Your task to perform on an android device: turn on notifications settings in the gmail app Image 0: 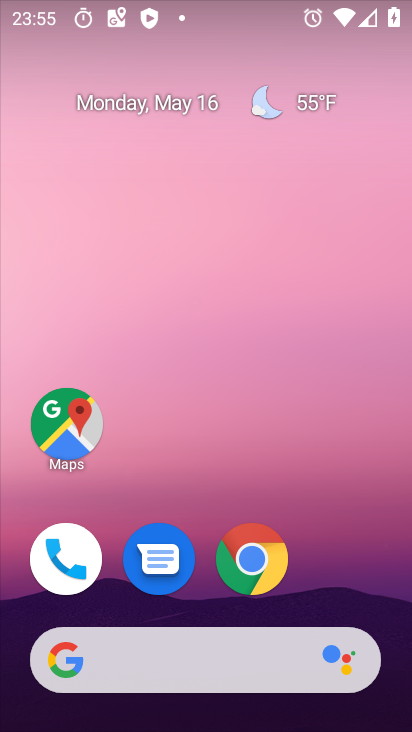
Step 0: drag from (359, 525) to (363, 97)
Your task to perform on an android device: turn on notifications settings in the gmail app Image 1: 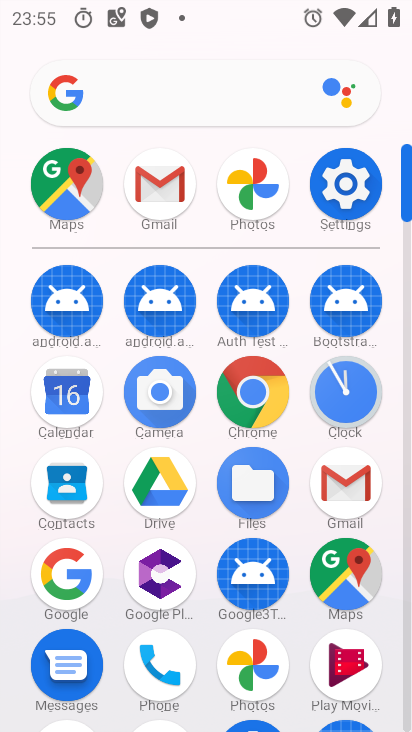
Step 1: click (147, 200)
Your task to perform on an android device: turn on notifications settings in the gmail app Image 2: 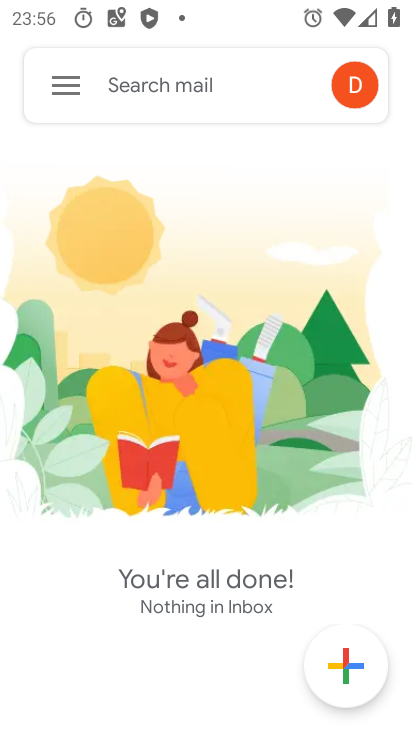
Step 2: click (71, 88)
Your task to perform on an android device: turn on notifications settings in the gmail app Image 3: 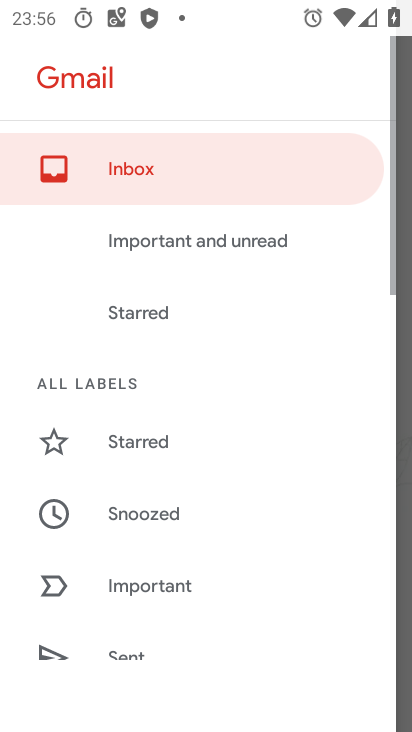
Step 3: drag from (200, 509) to (254, 118)
Your task to perform on an android device: turn on notifications settings in the gmail app Image 4: 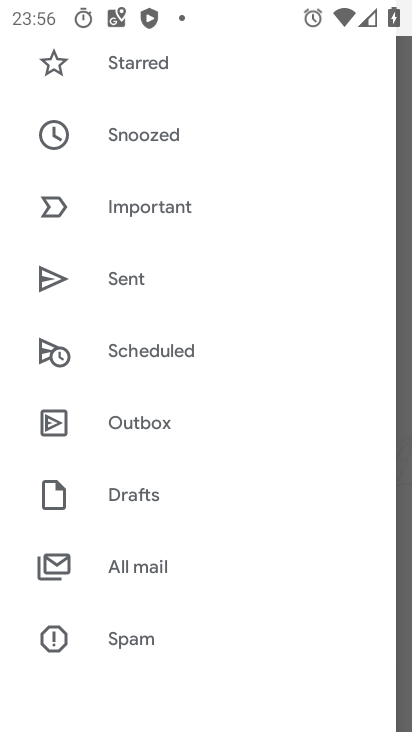
Step 4: drag from (219, 516) to (292, 257)
Your task to perform on an android device: turn on notifications settings in the gmail app Image 5: 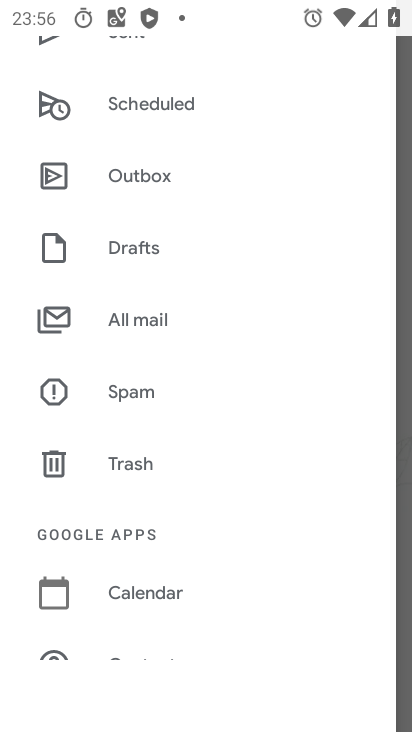
Step 5: drag from (170, 584) to (284, 187)
Your task to perform on an android device: turn on notifications settings in the gmail app Image 6: 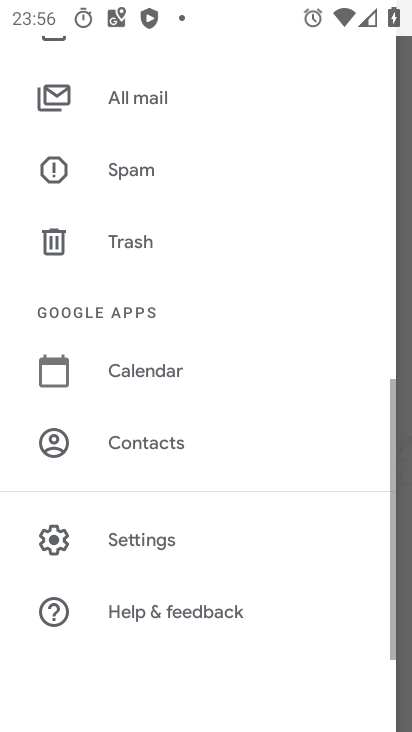
Step 6: click (167, 537)
Your task to perform on an android device: turn on notifications settings in the gmail app Image 7: 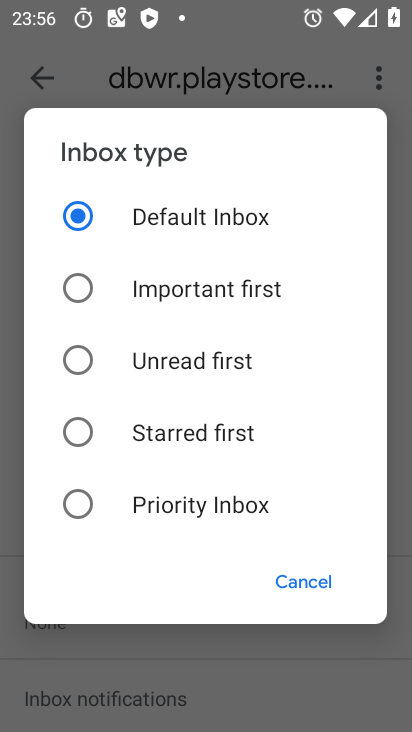
Step 7: click (301, 580)
Your task to perform on an android device: turn on notifications settings in the gmail app Image 8: 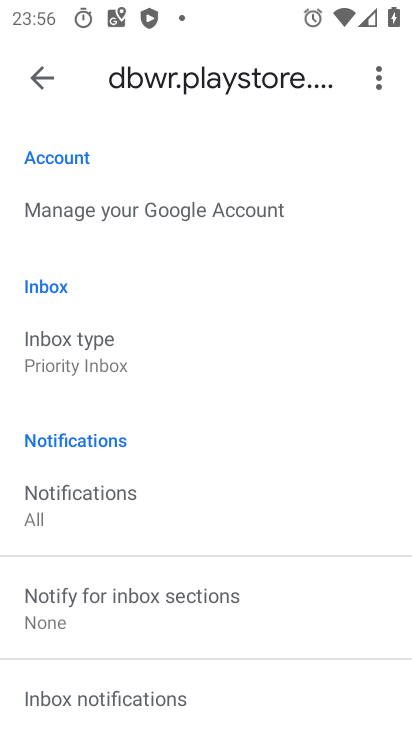
Step 8: click (211, 706)
Your task to perform on an android device: turn on notifications settings in the gmail app Image 9: 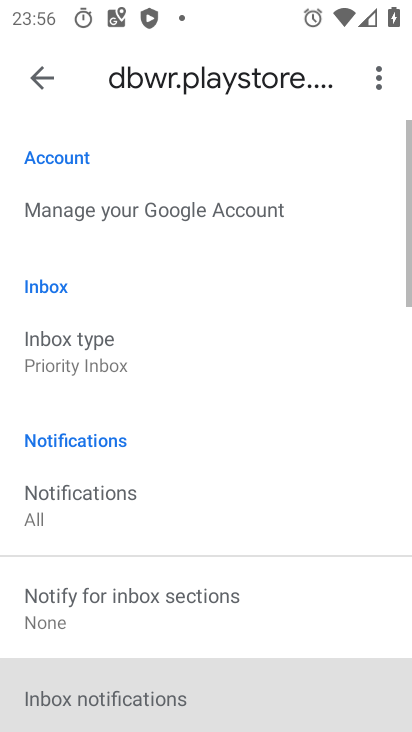
Step 9: click (210, 703)
Your task to perform on an android device: turn on notifications settings in the gmail app Image 10: 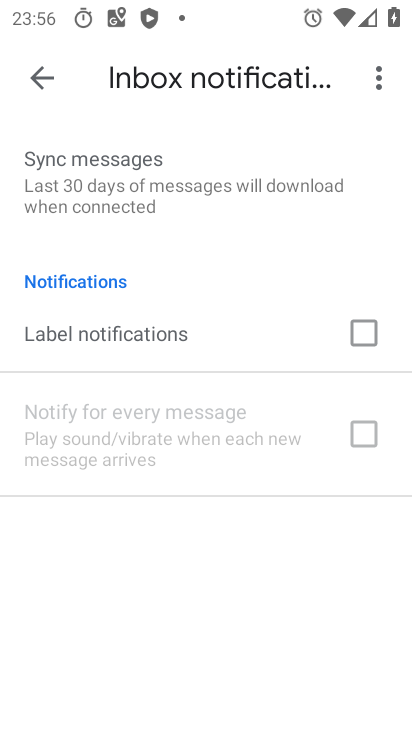
Step 10: click (52, 75)
Your task to perform on an android device: turn on notifications settings in the gmail app Image 11: 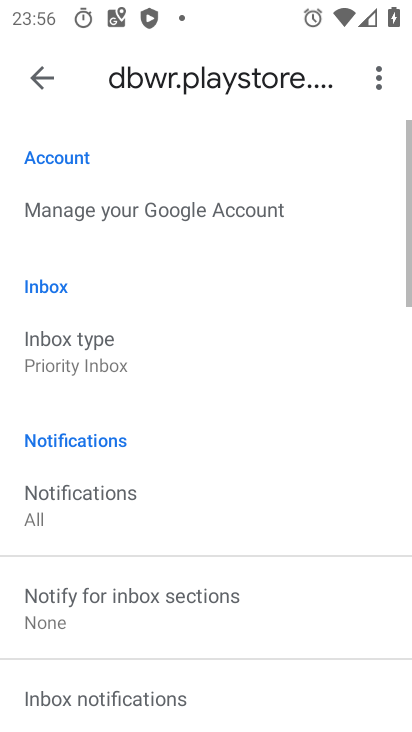
Step 11: drag from (239, 608) to (244, 188)
Your task to perform on an android device: turn on notifications settings in the gmail app Image 12: 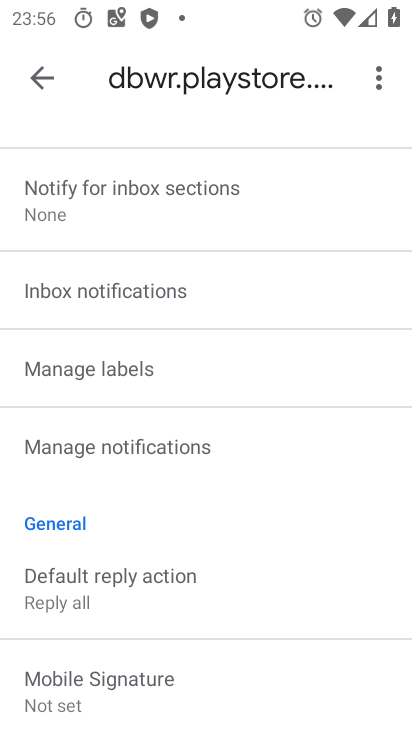
Step 12: click (172, 460)
Your task to perform on an android device: turn on notifications settings in the gmail app Image 13: 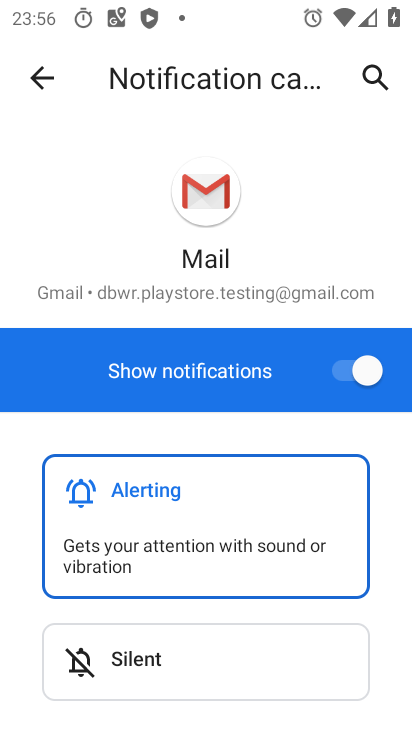
Step 13: task complete